Your task to perform on an android device: add a label to a message in the gmail app Image 0: 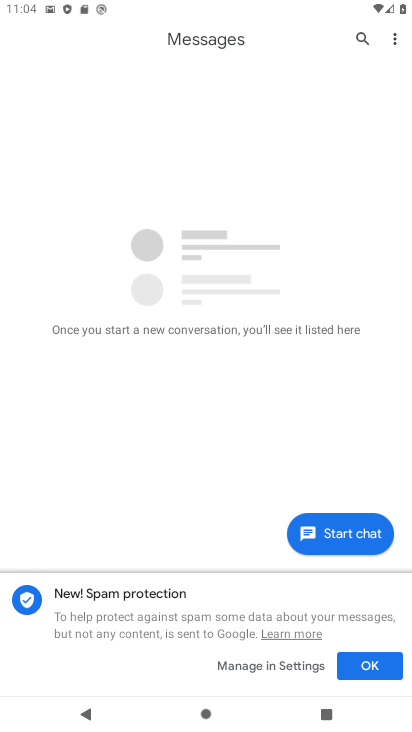
Step 0: press back button
Your task to perform on an android device: add a label to a message in the gmail app Image 1: 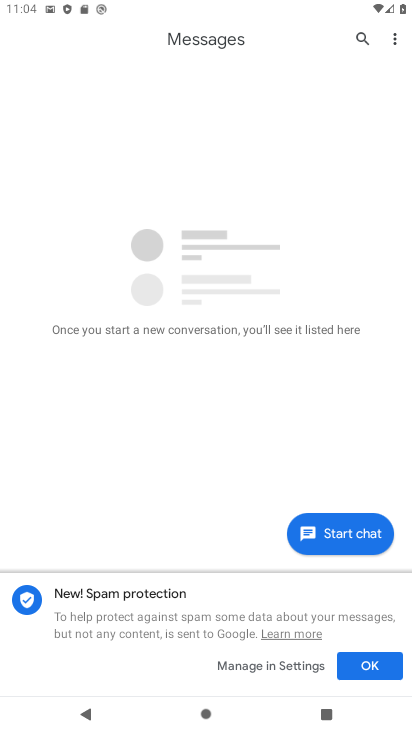
Step 1: press back button
Your task to perform on an android device: add a label to a message in the gmail app Image 2: 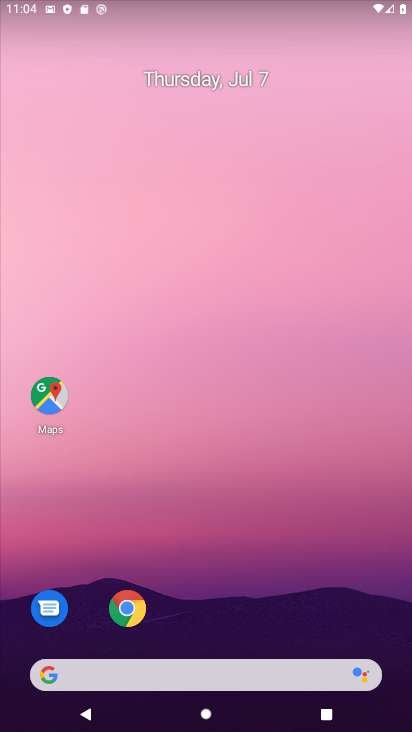
Step 2: drag from (245, 436) to (17, 47)
Your task to perform on an android device: add a label to a message in the gmail app Image 3: 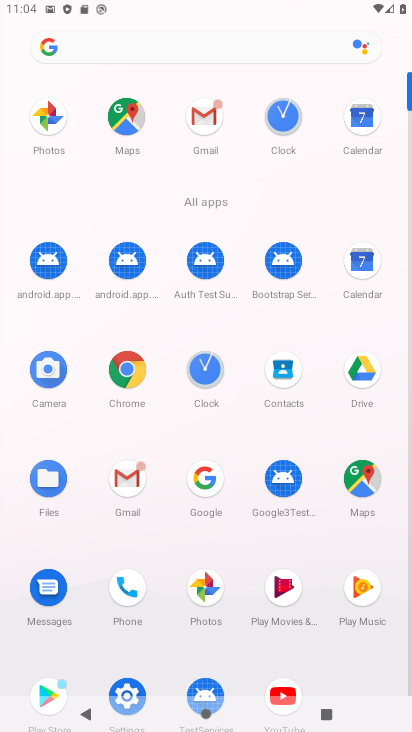
Step 3: click (108, 151)
Your task to perform on an android device: add a label to a message in the gmail app Image 4: 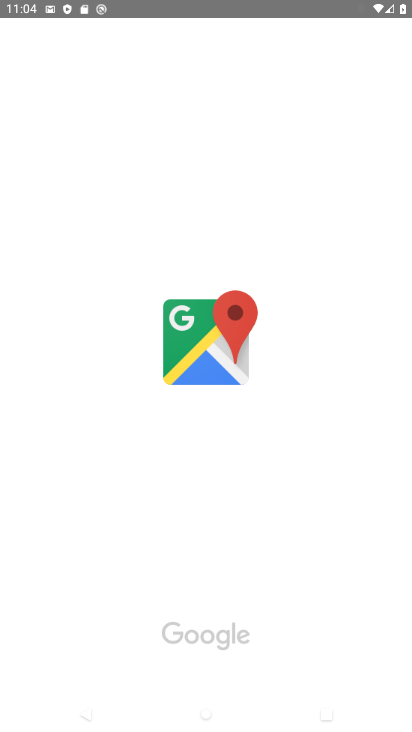
Step 4: click (152, 32)
Your task to perform on an android device: add a label to a message in the gmail app Image 5: 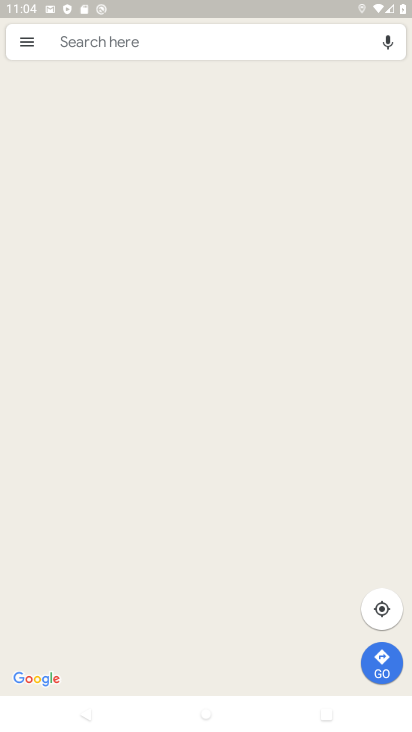
Step 5: click (132, 474)
Your task to perform on an android device: add a label to a message in the gmail app Image 6: 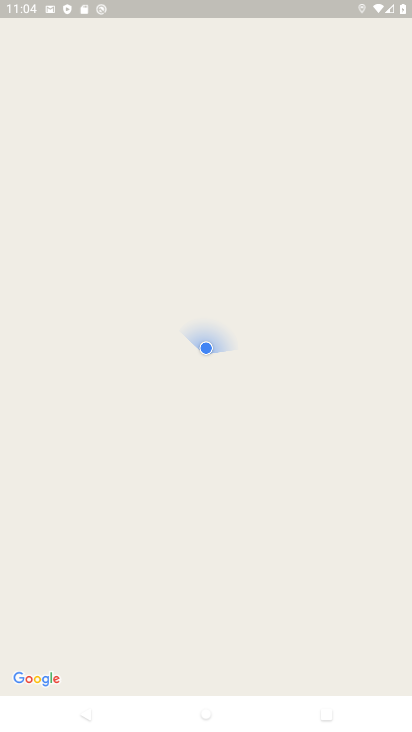
Step 6: press back button
Your task to perform on an android device: add a label to a message in the gmail app Image 7: 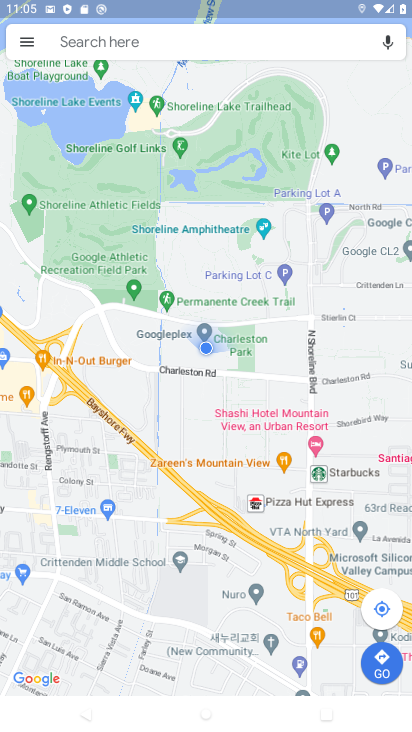
Step 7: press back button
Your task to perform on an android device: add a label to a message in the gmail app Image 8: 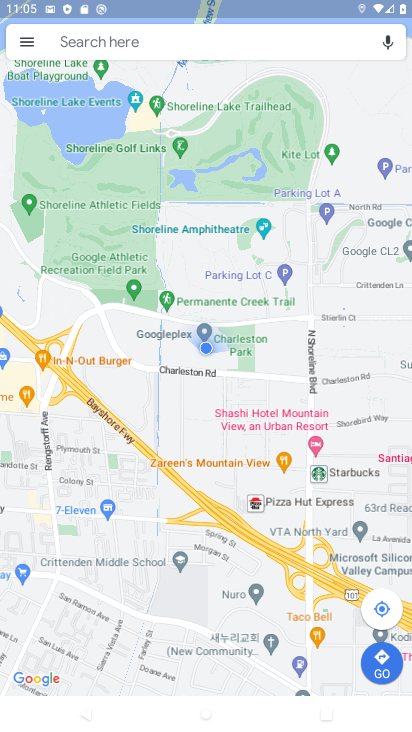
Step 8: press back button
Your task to perform on an android device: add a label to a message in the gmail app Image 9: 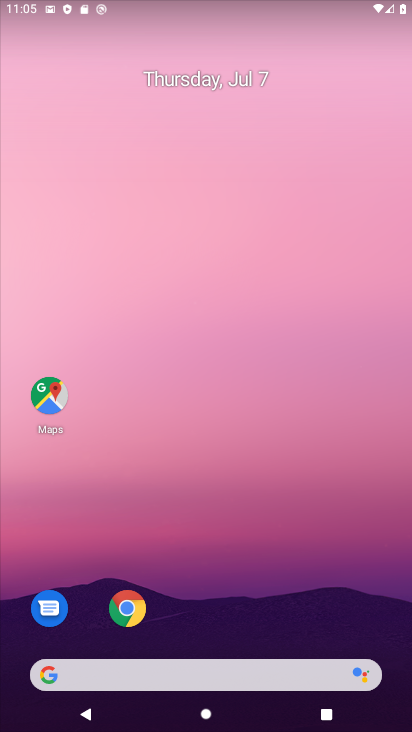
Step 9: drag from (251, 589) to (157, 69)
Your task to perform on an android device: add a label to a message in the gmail app Image 10: 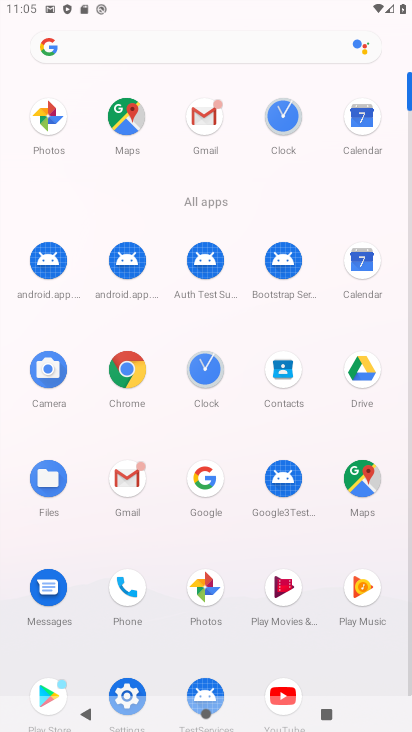
Step 10: click (120, 482)
Your task to perform on an android device: add a label to a message in the gmail app Image 11: 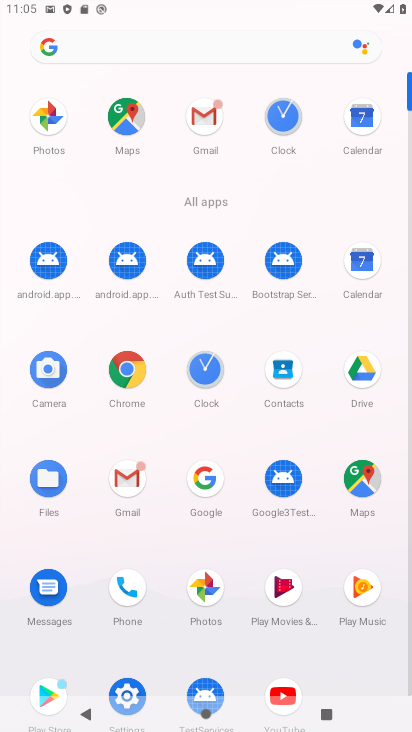
Step 11: click (118, 482)
Your task to perform on an android device: add a label to a message in the gmail app Image 12: 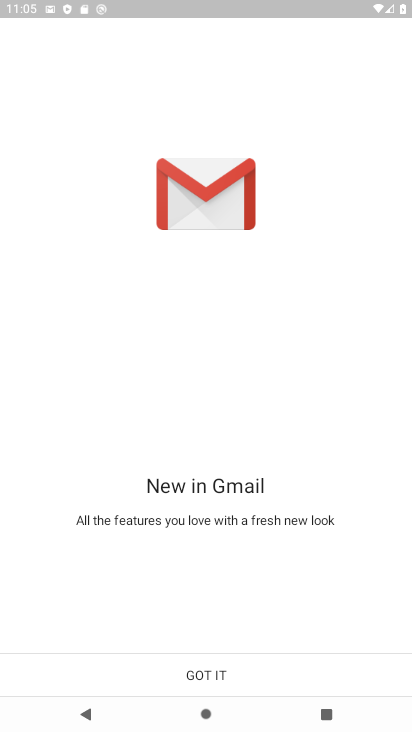
Step 12: click (239, 673)
Your task to perform on an android device: add a label to a message in the gmail app Image 13: 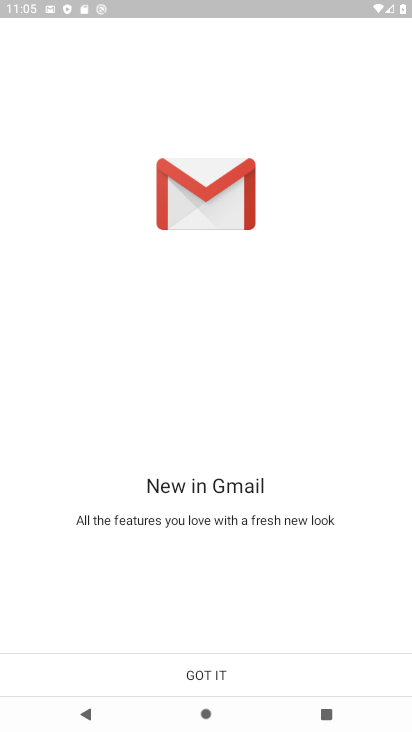
Step 13: click (237, 673)
Your task to perform on an android device: add a label to a message in the gmail app Image 14: 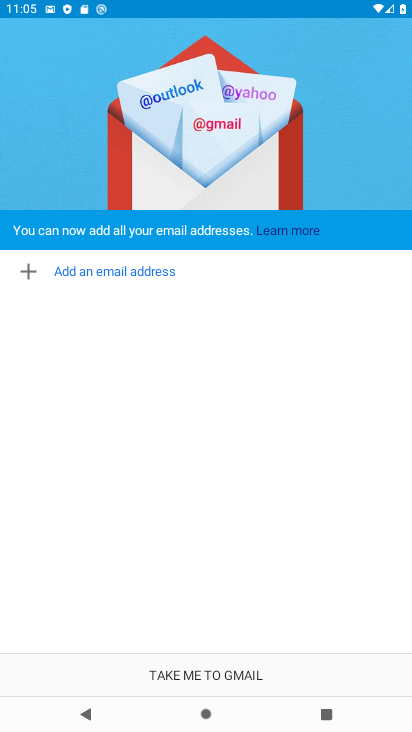
Step 14: click (237, 673)
Your task to perform on an android device: add a label to a message in the gmail app Image 15: 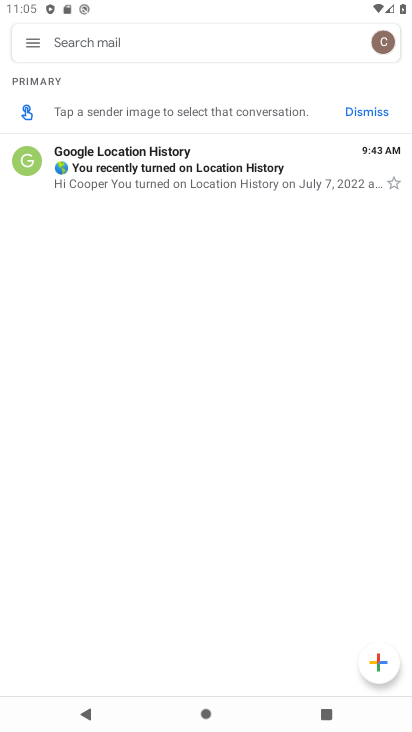
Step 15: click (206, 171)
Your task to perform on an android device: add a label to a message in the gmail app Image 16: 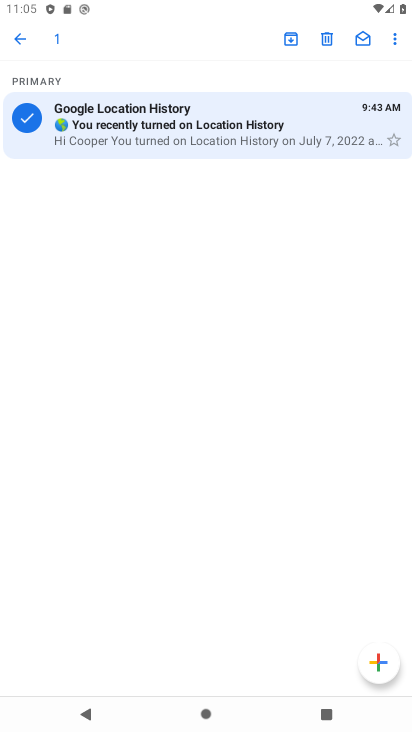
Step 16: click (389, 43)
Your task to perform on an android device: add a label to a message in the gmail app Image 17: 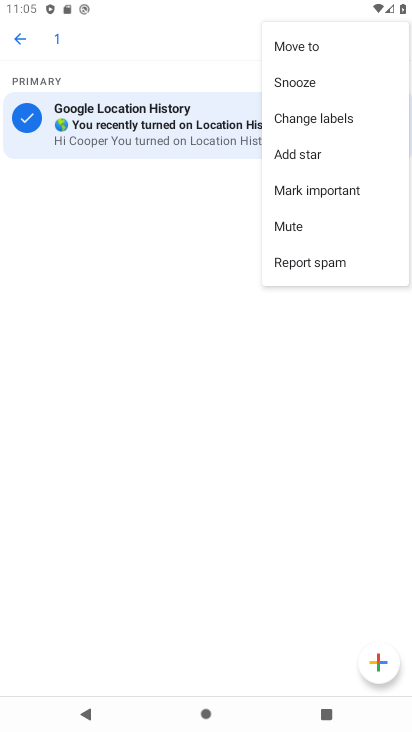
Step 17: click (306, 111)
Your task to perform on an android device: add a label to a message in the gmail app Image 18: 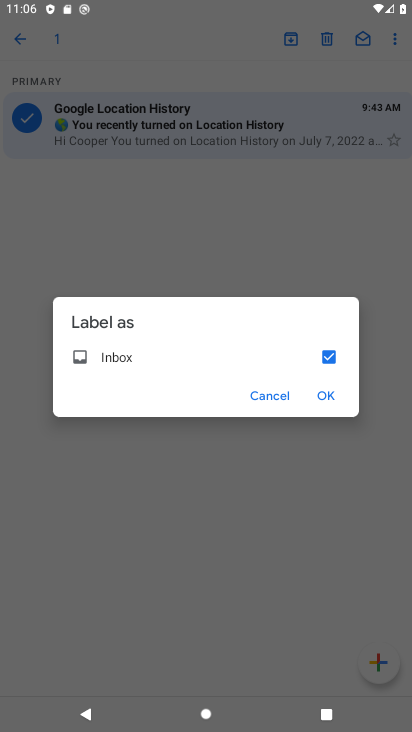
Step 18: click (331, 392)
Your task to perform on an android device: add a label to a message in the gmail app Image 19: 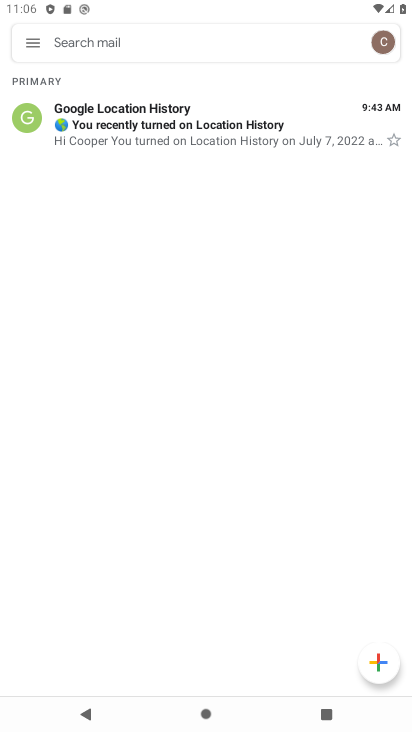
Step 19: task complete